Your task to perform on an android device: see tabs open on other devices in the chrome app Image 0: 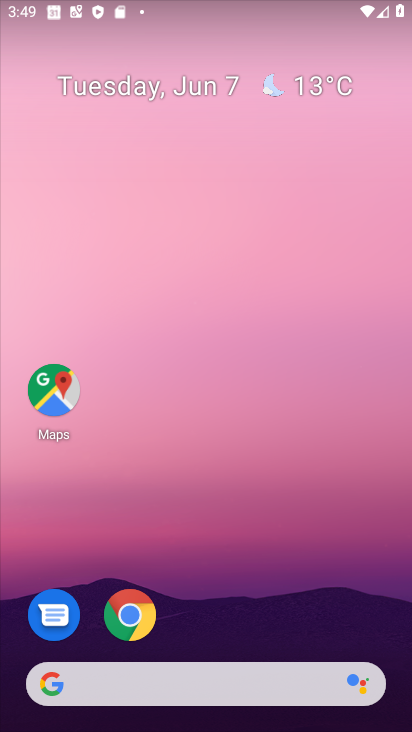
Step 0: click (135, 610)
Your task to perform on an android device: see tabs open on other devices in the chrome app Image 1: 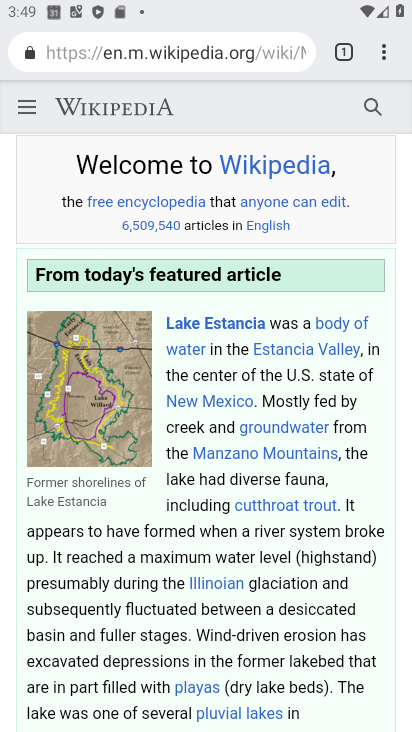
Step 1: click (383, 56)
Your task to perform on an android device: see tabs open on other devices in the chrome app Image 2: 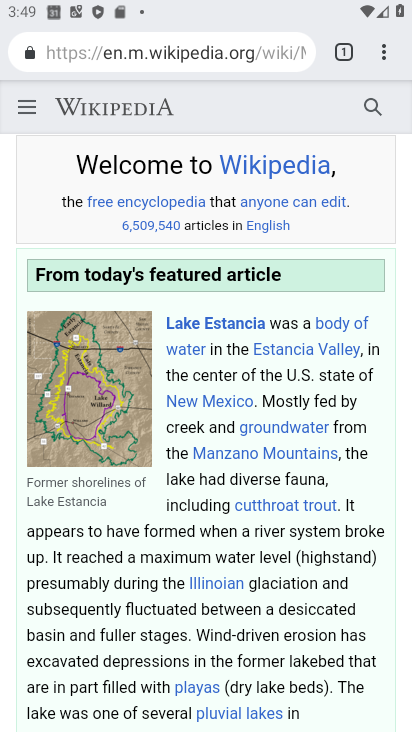
Step 2: click (378, 50)
Your task to perform on an android device: see tabs open on other devices in the chrome app Image 3: 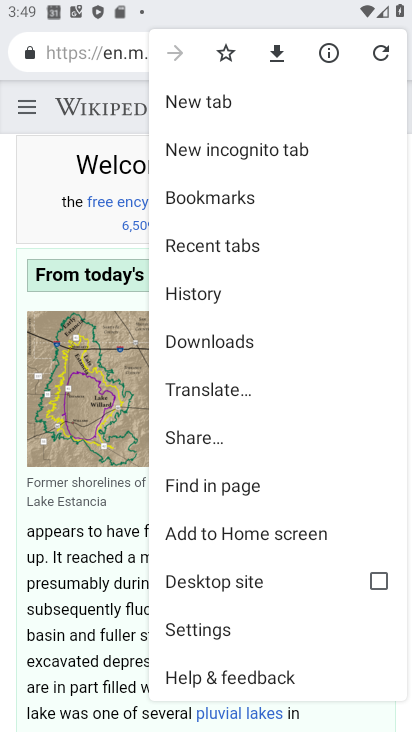
Step 3: click (237, 240)
Your task to perform on an android device: see tabs open on other devices in the chrome app Image 4: 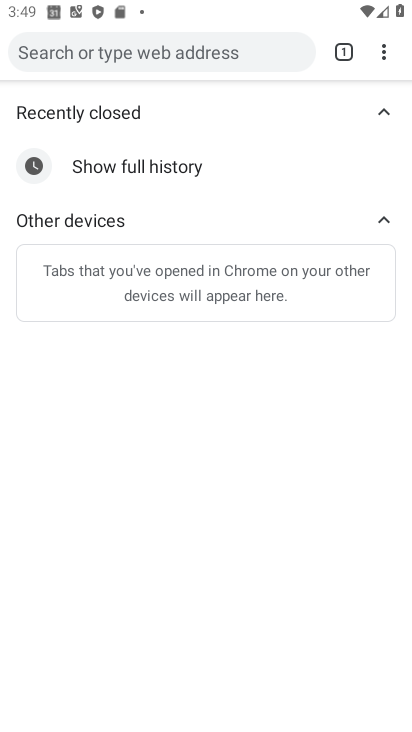
Step 4: task complete